Your task to perform on an android device: visit the assistant section in the google photos Image 0: 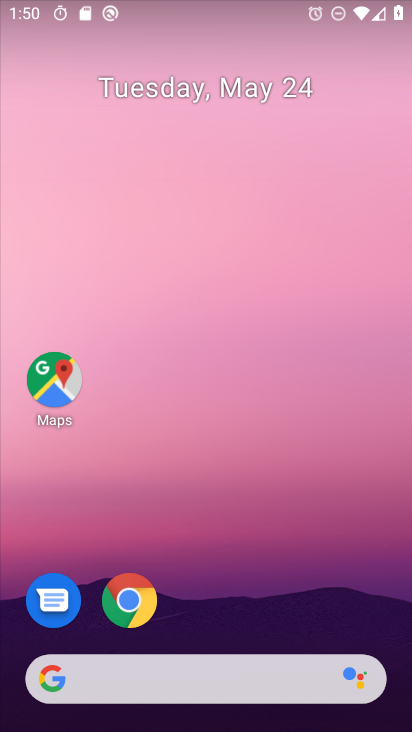
Step 0: drag from (199, 569) to (218, 145)
Your task to perform on an android device: visit the assistant section in the google photos Image 1: 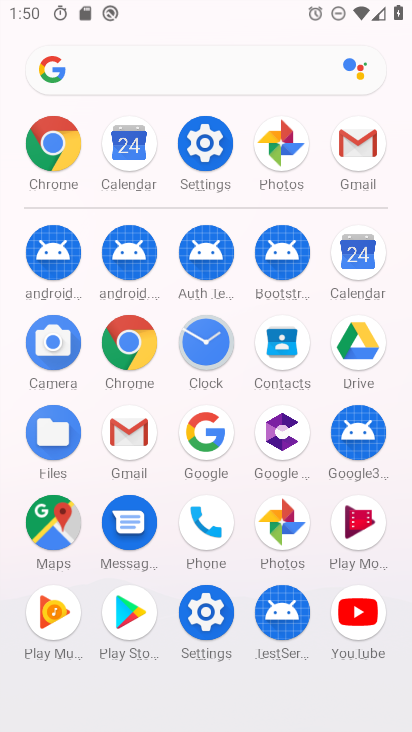
Step 1: click (283, 519)
Your task to perform on an android device: visit the assistant section in the google photos Image 2: 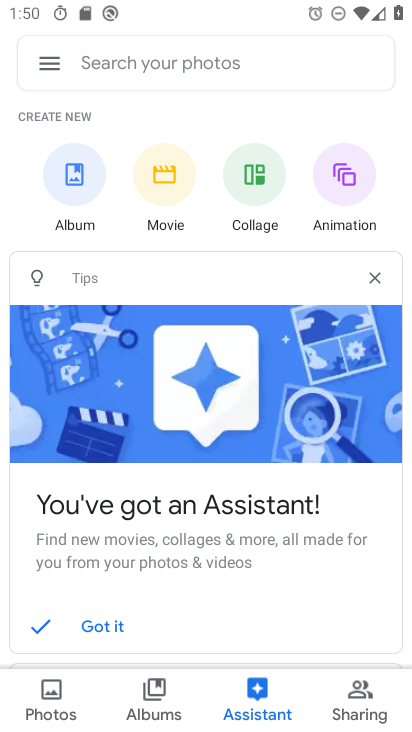
Step 2: task complete